Your task to perform on an android device: find snoozed emails in the gmail app Image 0: 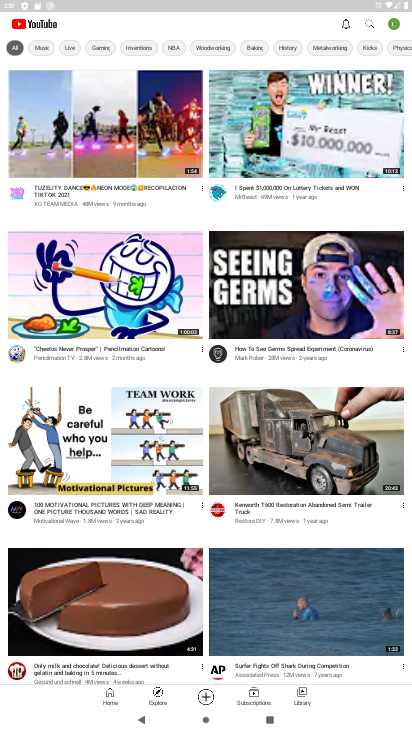
Step 0: press home button
Your task to perform on an android device: find snoozed emails in the gmail app Image 1: 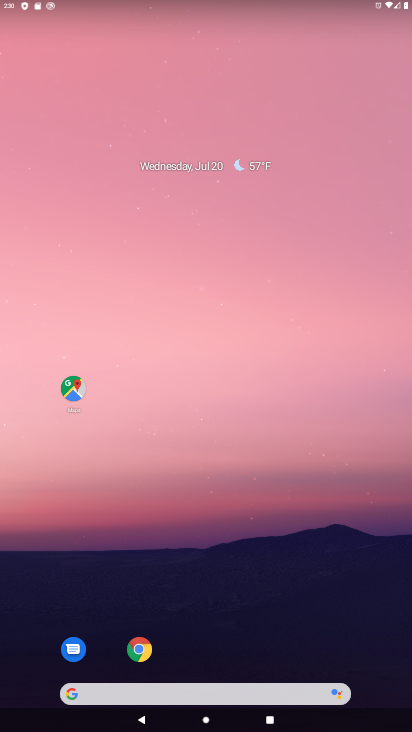
Step 1: drag from (205, 627) to (182, 117)
Your task to perform on an android device: find snoozed emails in the gmail app Image 2: 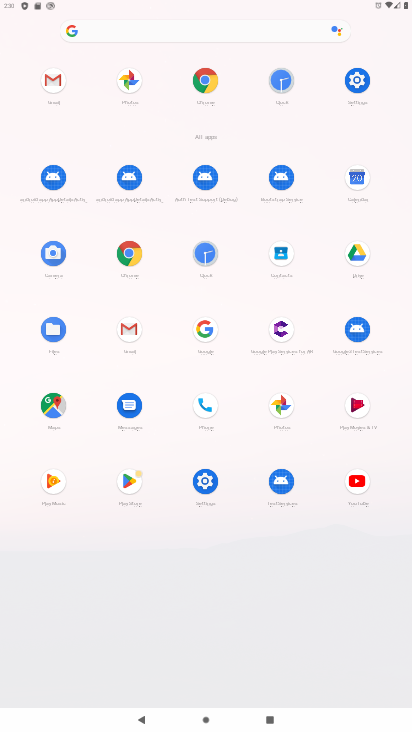
Step 2: click (44, 81)
Your task to perform on an android device: find snoozed emails in the gmail app Image 3: 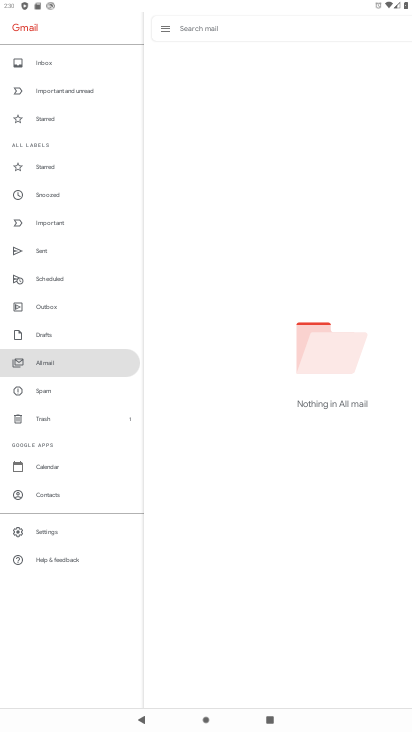
Step 3: click (76, 192)
Your task to perform on an android device: find snoozed emails in the gmail app Image 4: 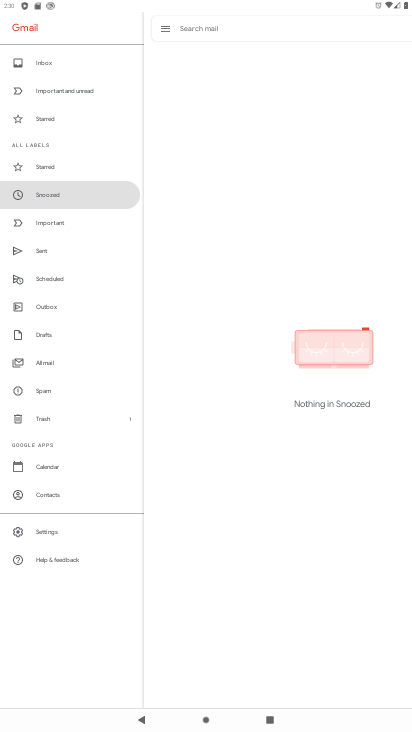
Step 4: task complete